Your task to perform on an android device: turn on priority inbox in the gmail app Image 0: 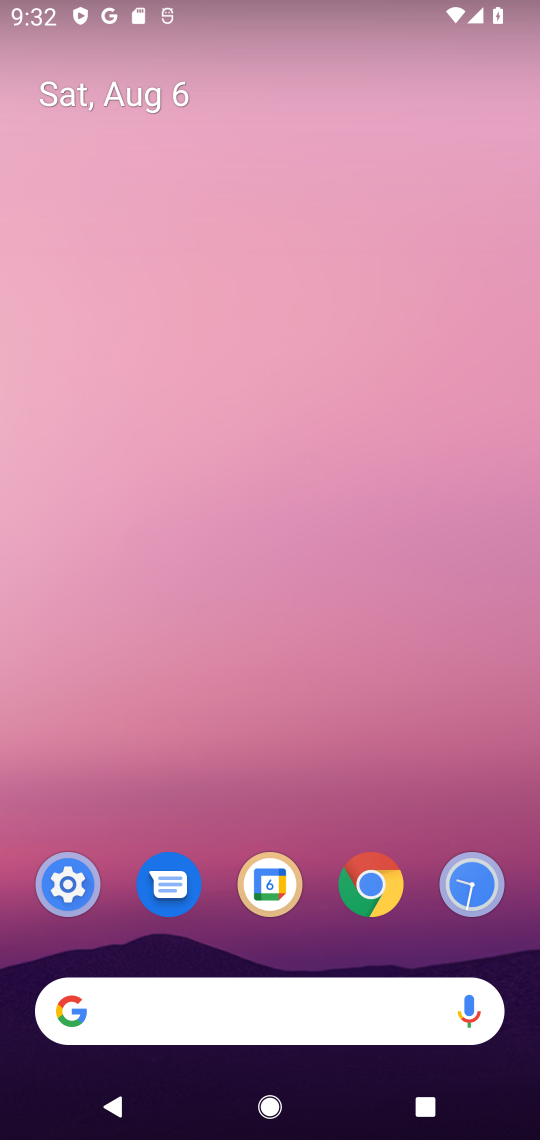
Step 0: drag from (432, 950) to (411, 158)
Your task to perform on an android device: turn on priority inbox in the gmail app Image 1: 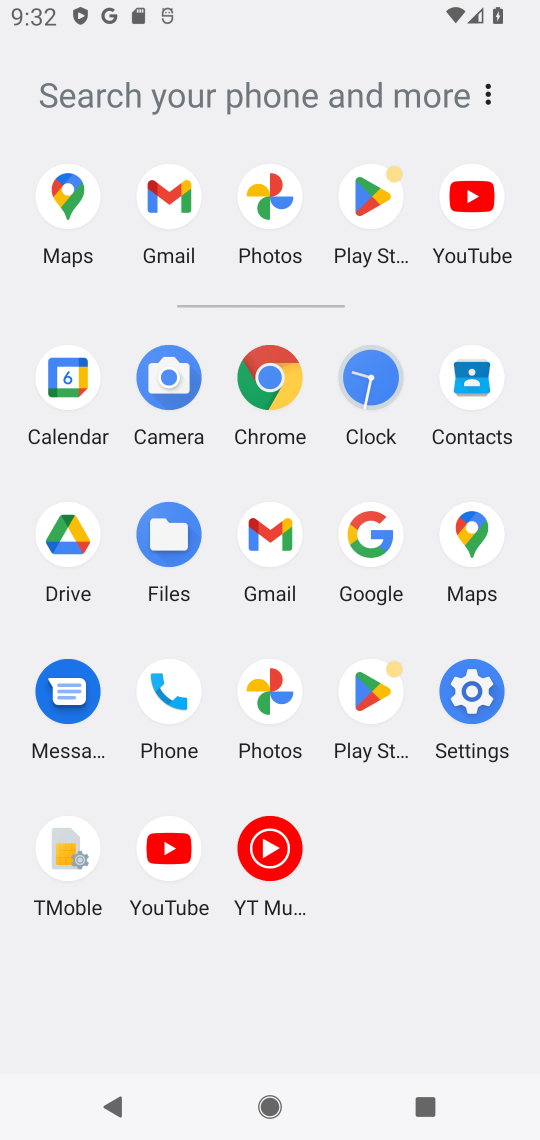
Step 1: click (264, 538)
Your task to perform on an android device: turn on priority inbox in the gmail app Image 2: 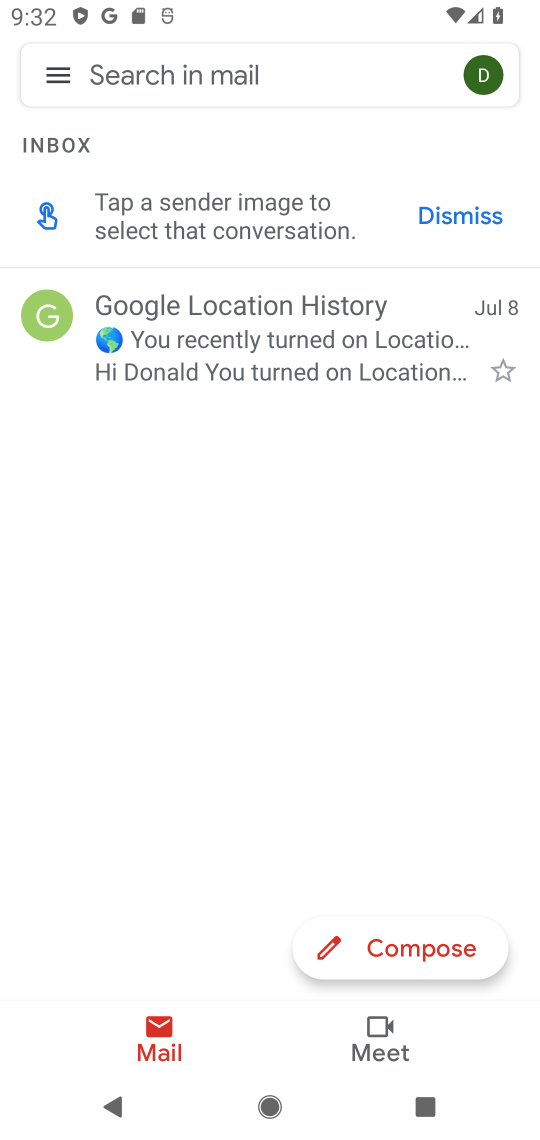
Step 2: click (54, 74)
Your task to perform on an android device: turn on priority inbox in the gmail app Image 3: 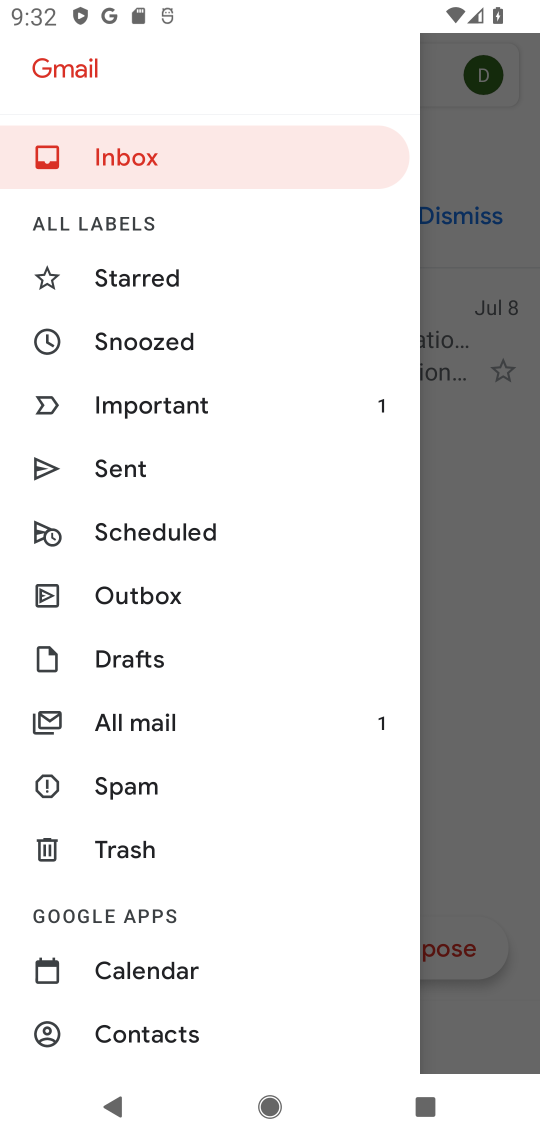
Step 3: drag from (273, 930) to (313, 480)
Your task to perform on an android device: turn on priority inbox in the gmail app Image 4: 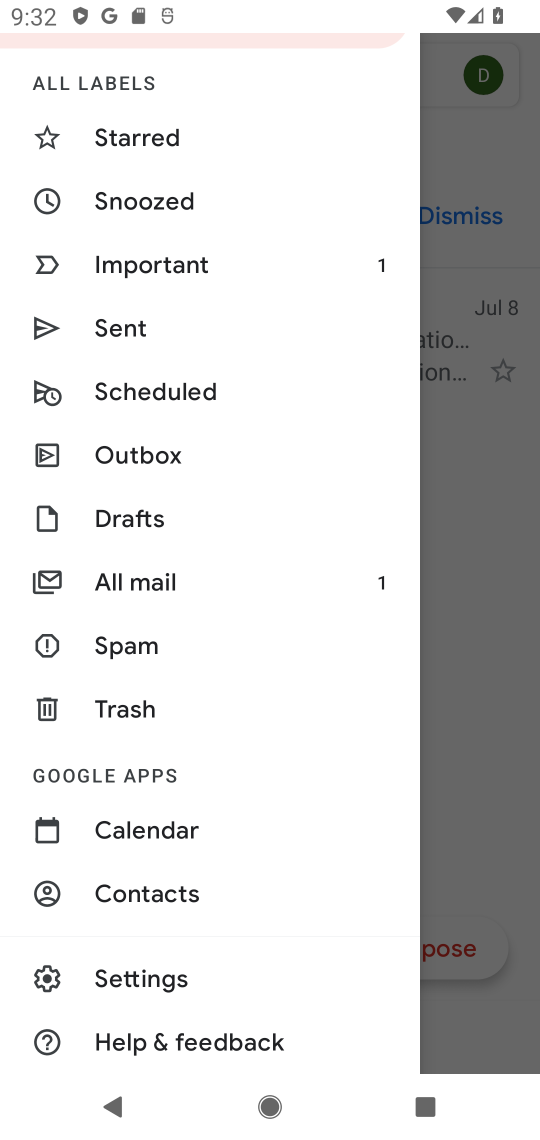
Step 4: click (136, 975)
Your task to perform on an android device: turn on priority inbox in the gmail app Image 5: 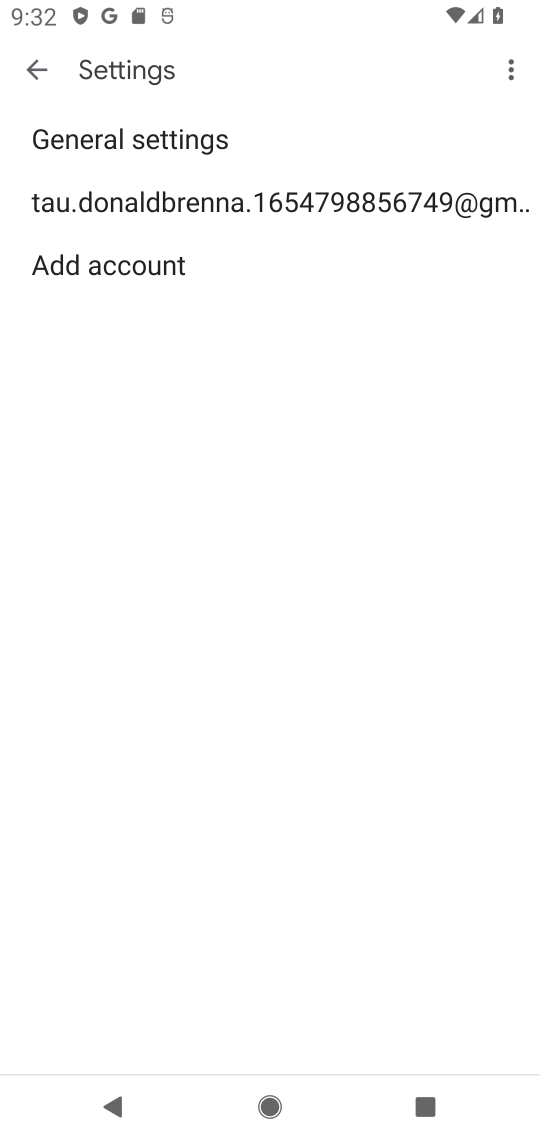
Step 5: click (188, 204)
Your task to perform on an android device: turn on priority inbox in the gmail app Image 6: 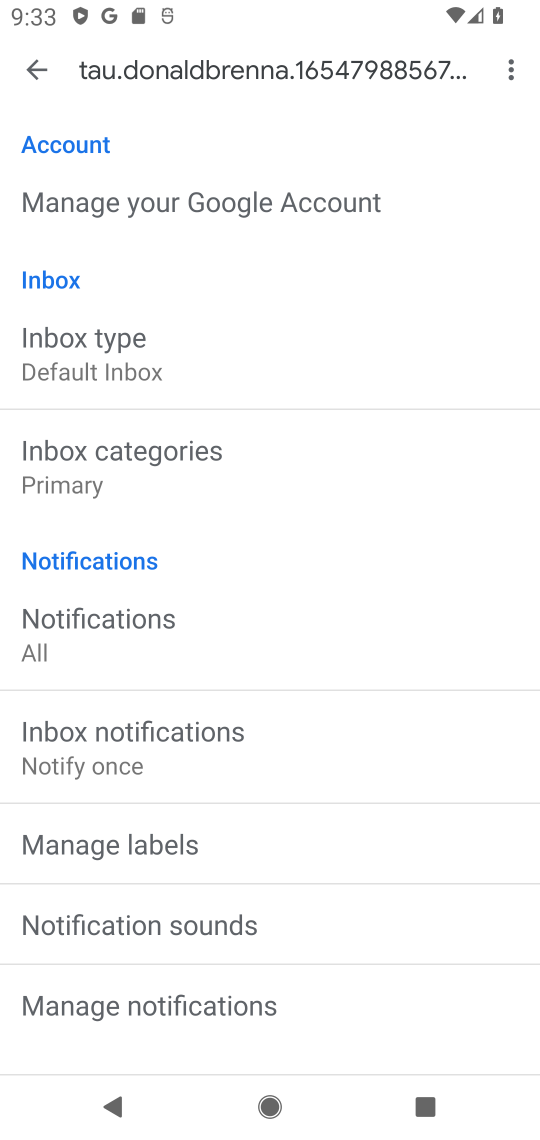
Step 6: click (73, 353)
Your task to perform on an android device: turn on priority inbox in the gmail app Image 7: 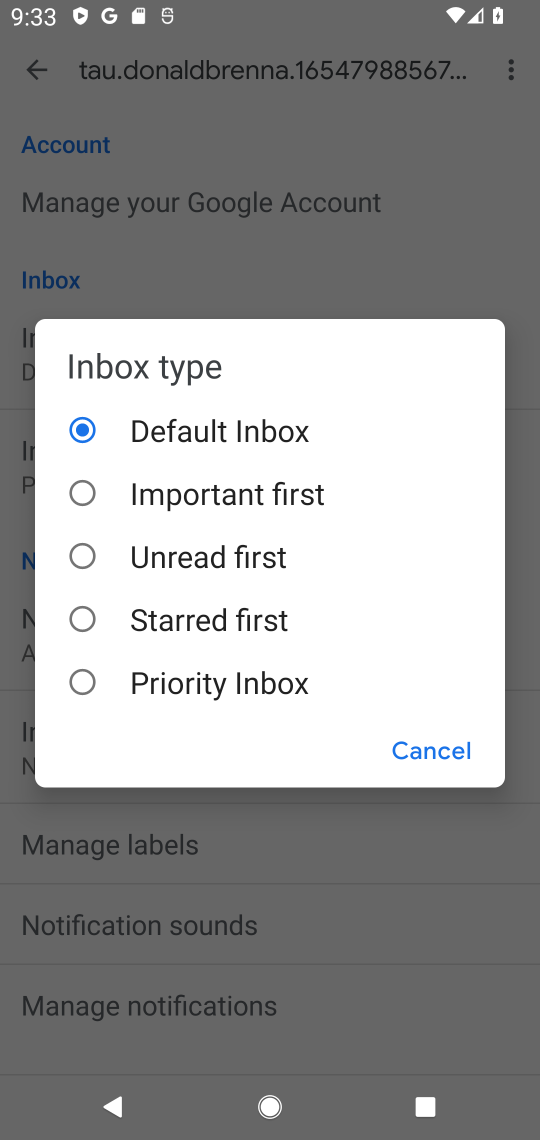
Step 7: click (90, 679)
Your task to perform on an android device: turn on priority inbox in the gmail app Image 8: 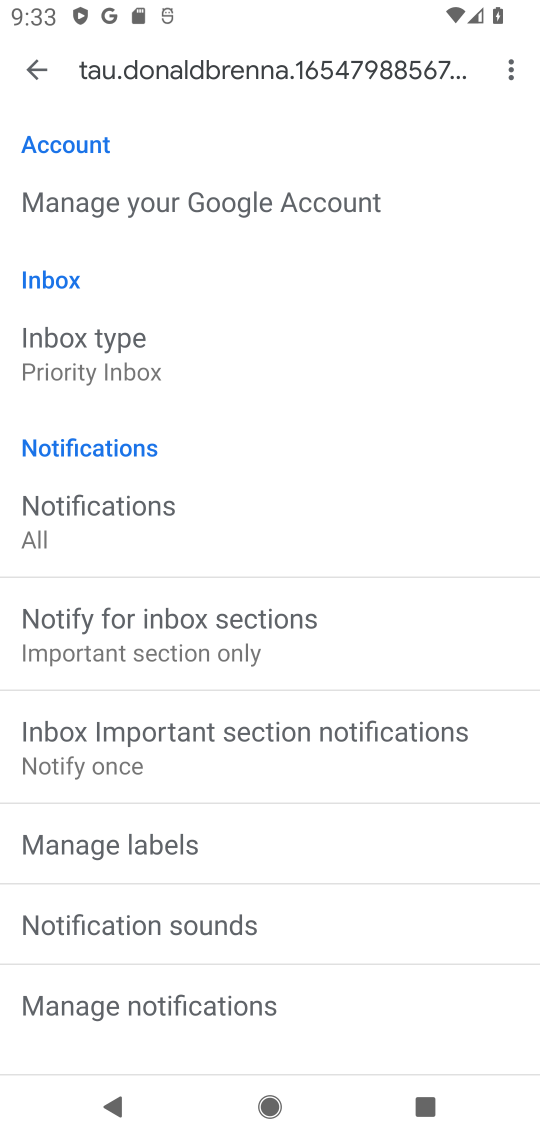
Step 8: task complete